Your task to perform on an android device: Is it going to rain tomorrow? Image 0: 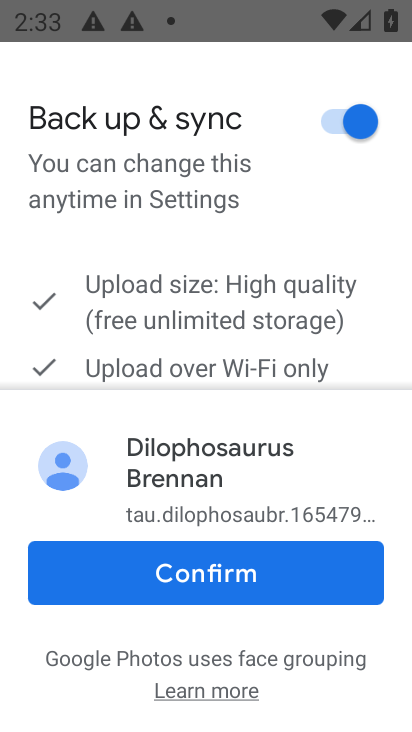
Step 0: press home button
Your task to perform on an android device: Is it going to rain tomorrow? Image 1: 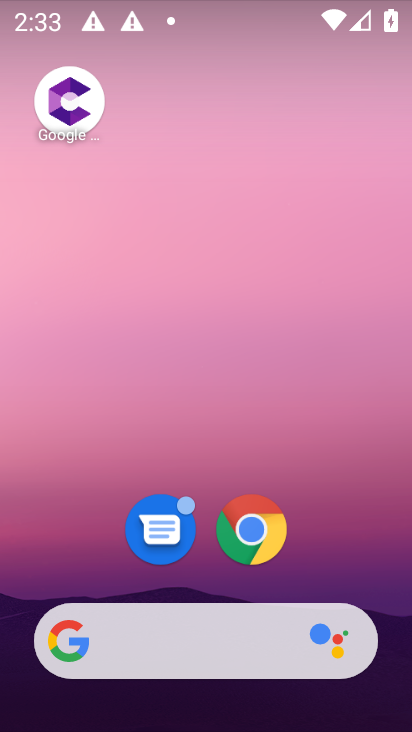
Step 1: click (72, 639)
Your task to perform on an android device: Is it going to rain tomorrow? Image 2: 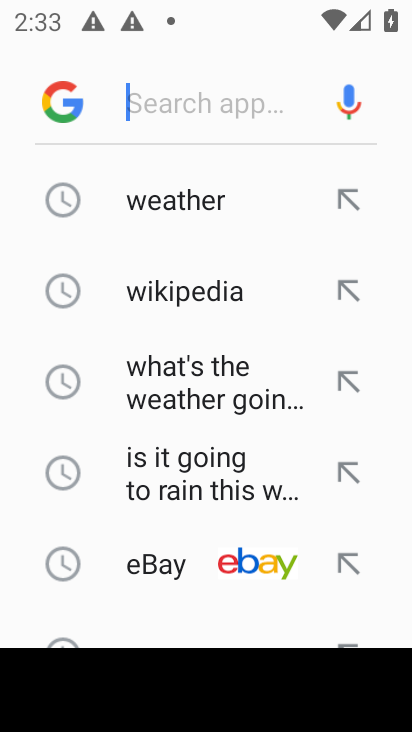
Step 2: type " rain tomorrow?"
Your task to perform on an android device: Is it going to rain tomorrow? Image 3: 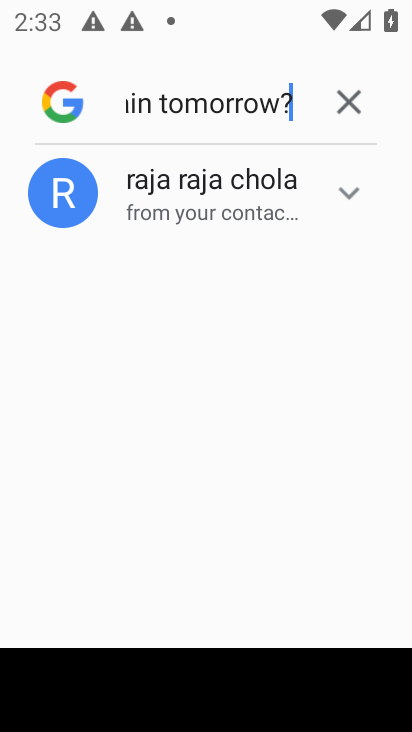
Step 3: press enter
Your task to perform on an android device: Is it going to rain tomorrow? Image 4: 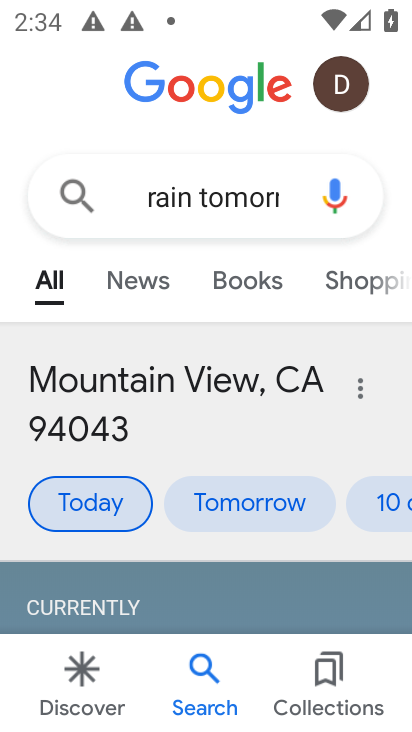
Step 4: task complete